Your task to perform on an android device: Open internet settings Image 0: 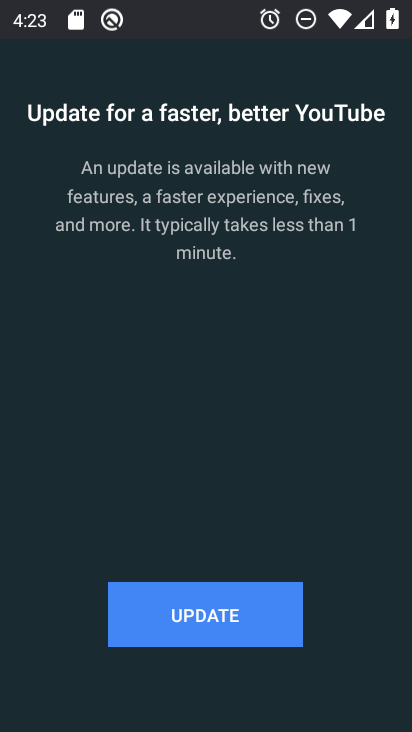
Step 0: press home button
Your task to perform on an android device: Open internet settings Image 1: 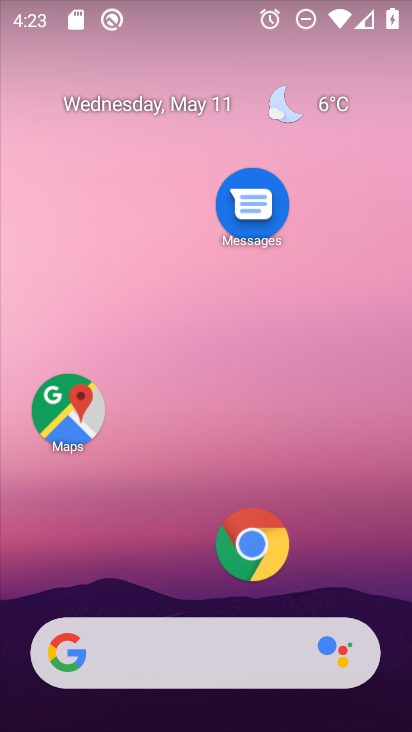
Step 1: drag from (173, 573) to (213, 39)
Your task to perform on an android device: Open internet settings Image 2: 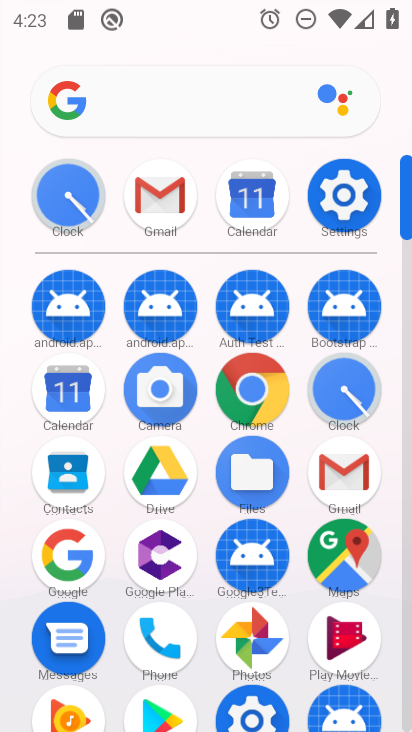
Step 2: click (332, 193)
Your task to perform on an android device: Open internet settings Image 3: 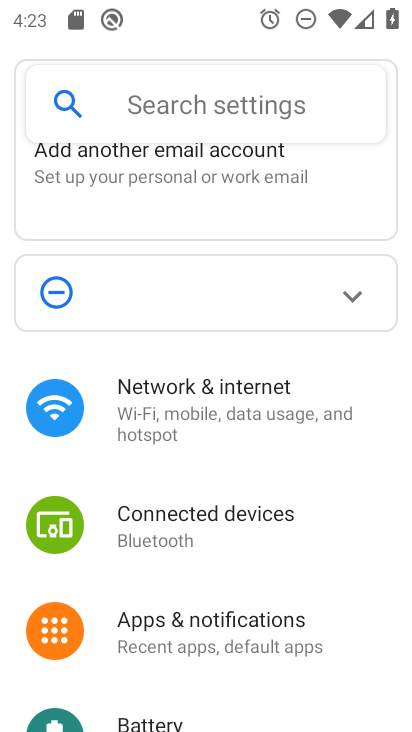
Step 3: click (157, 407)
Your task to perform on an android device: Open internet settings Image 4: 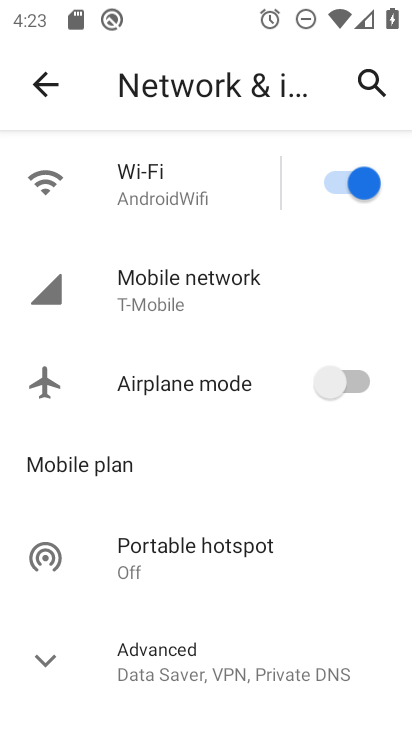
Step 4: task complete